Your task to perform on an android device: toggle airplane mode Image 0: 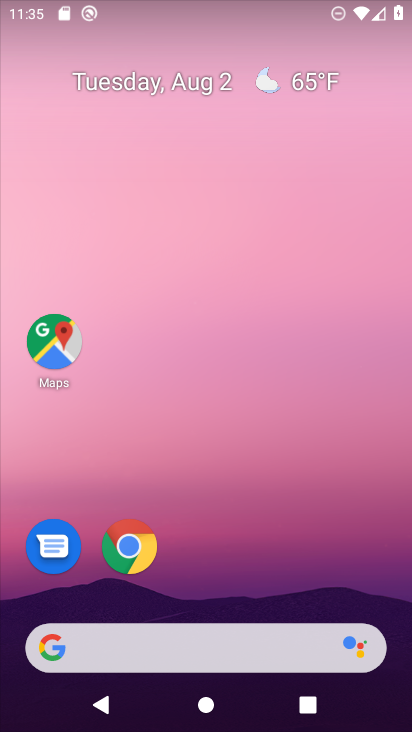
Step 0: drag from (231, 561) to (223, 113)
Your task to perform on an android device: toggle airplane mode Image 1: 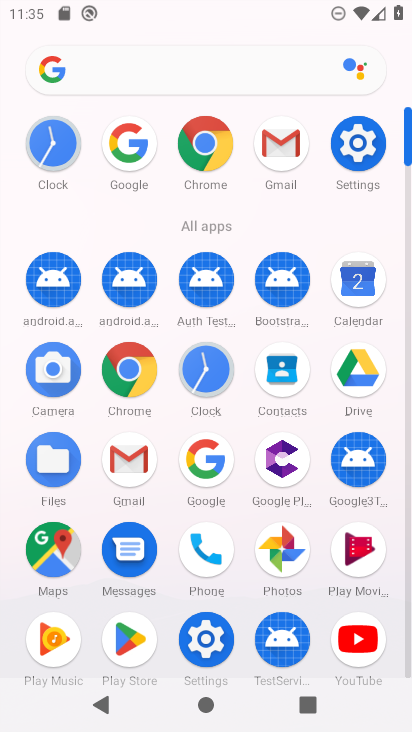
Step 1: click (338, 144)
Your task to perform on an android device: toggle airplane mode Image 2: 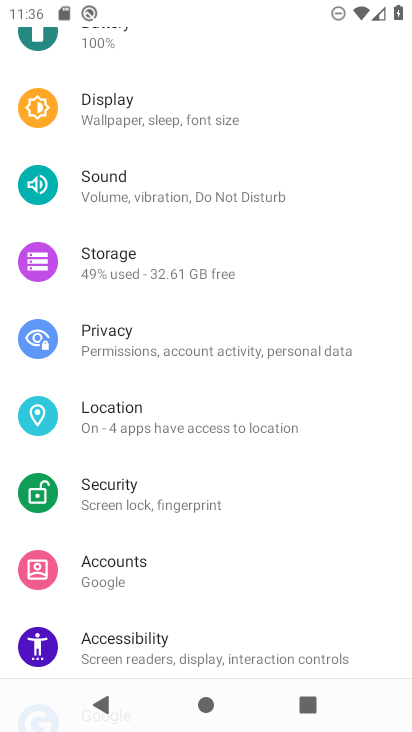
Step 2: drag from (210, 123) to (180, 374)
Your task to perform on an android device: toggle airplane mode Image 3: 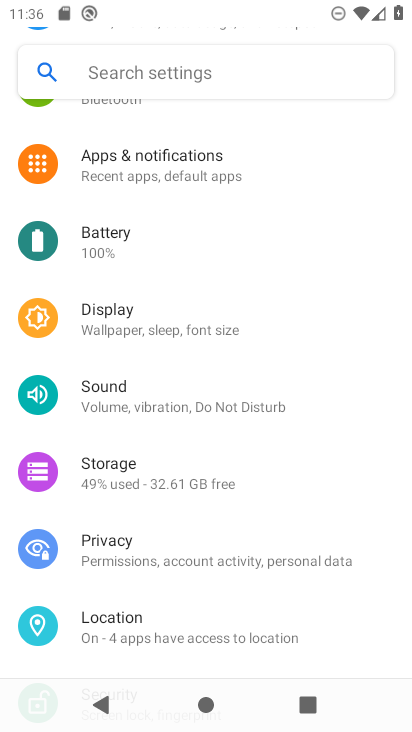
Step 3: drag from (169, 179) to (187, 429)
Your task to perform on an android device: toggle airplane mode Image 4: 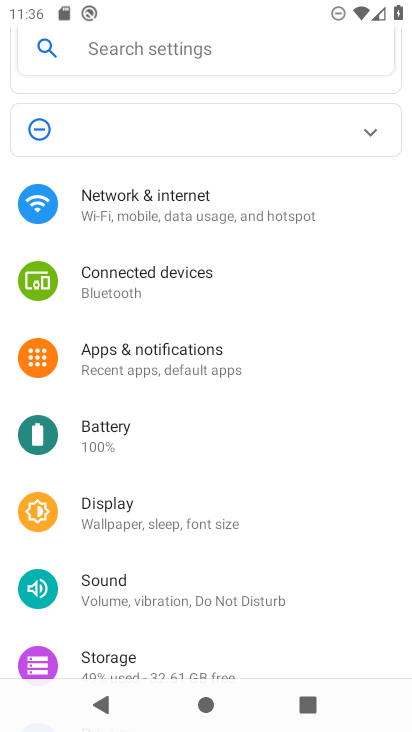
Step 4: click (146, 213)
Your task to perform on an android device: toggle airplane mode Image 5: 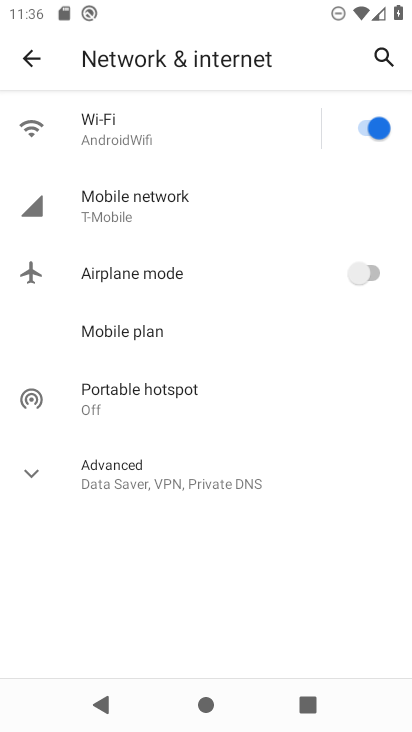
Step 5: click (373, 282)
Your task to perform on an android device: toggle airplane mode Image 6: 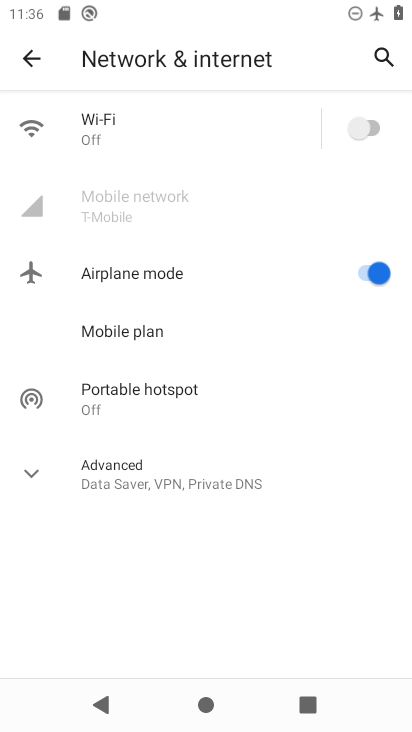
Step 6: task complete